Your task to perform on an android device: change the clock display to analog Image 0: 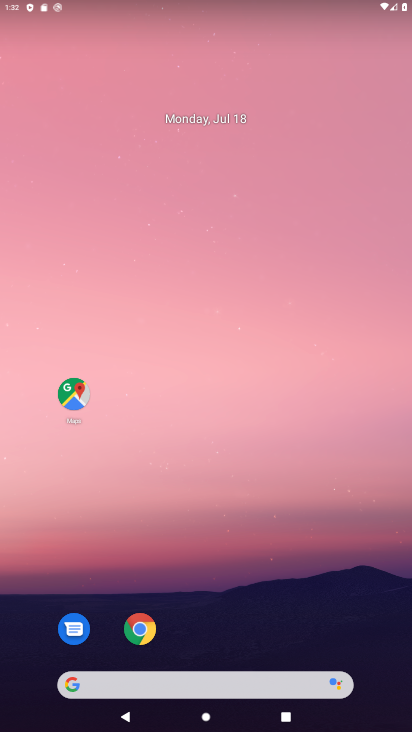
Step 0: drag from (215, 561) to (215, 238)
Your task to perform on an android device: change the clock display to analog Image 1: 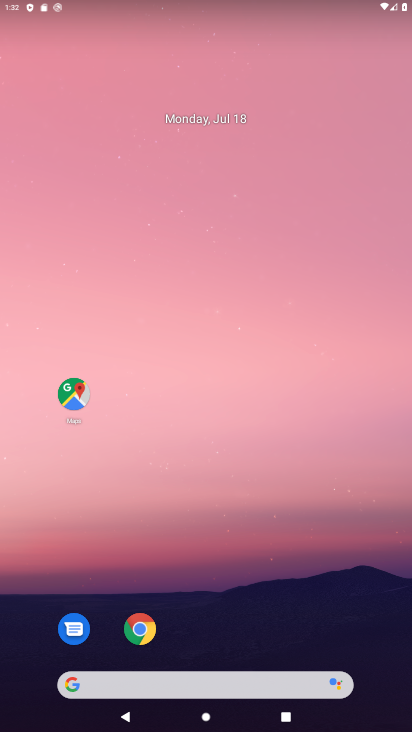
Step 1: drag from (251, 435) to (259, 130)
Your task to perform on an android device: change the clock display to analog Image 2: 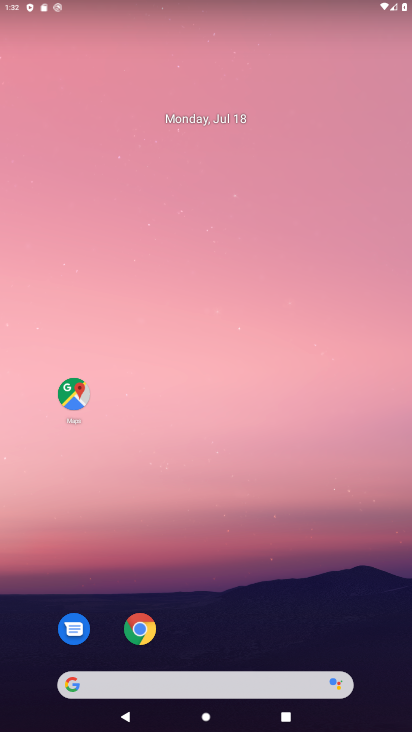
Step 2: drag from (195, 585) to (195, 233)
Your task to perform on an android device: change the clock display to analog Image 3: 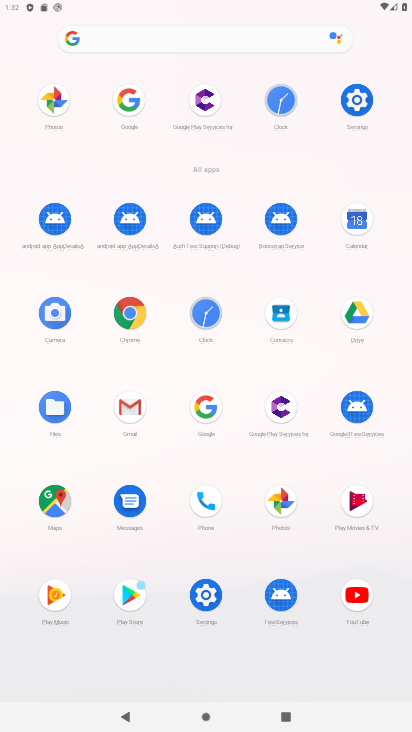
Step 3: click (278, 101)
Your task to perform on an android device: change the clock display to analog Image 4: 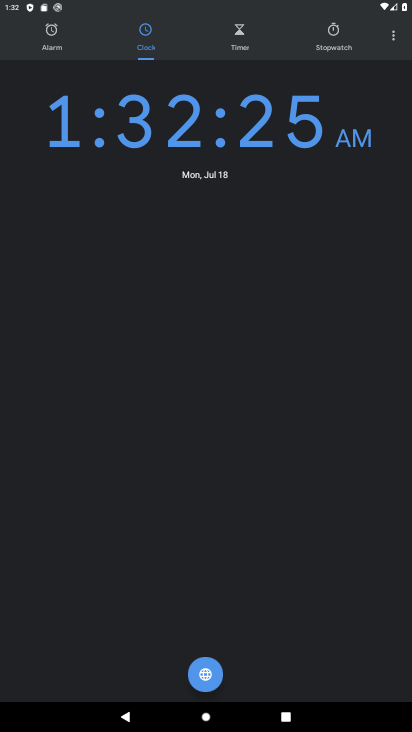
Step 4: click (393, 37)
Your task to perform on an android device: change the clock display to analog Image 5: 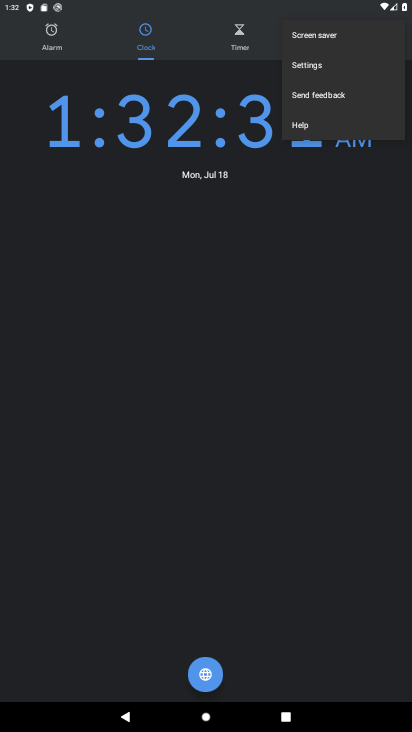
Step 5: click (303, 62)
Your task to perform on an android device: change the clock display to analog Image 6: 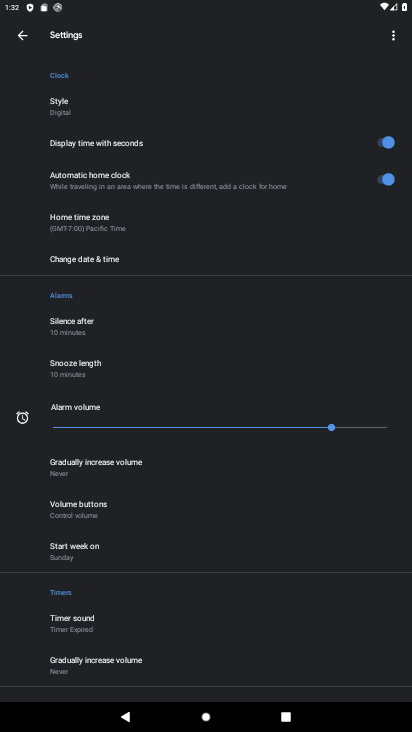
Step 6: click (63, 114)
Your task to perform on an android device: change the clock display to analog Image 7: 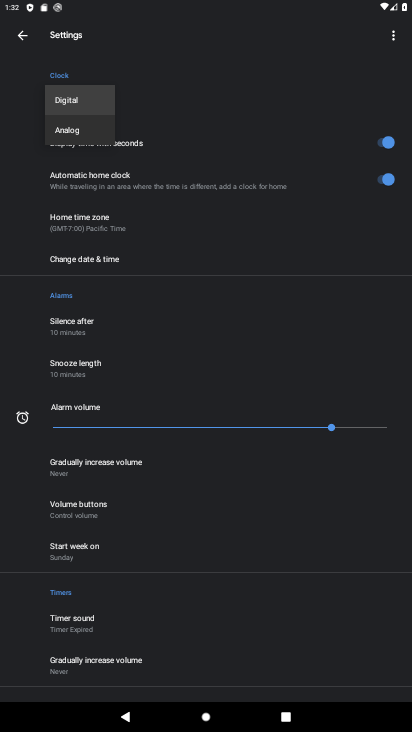
Step 7: click (71, 130)
Your task to perform on an android device: change the clock display to analog Image 8: 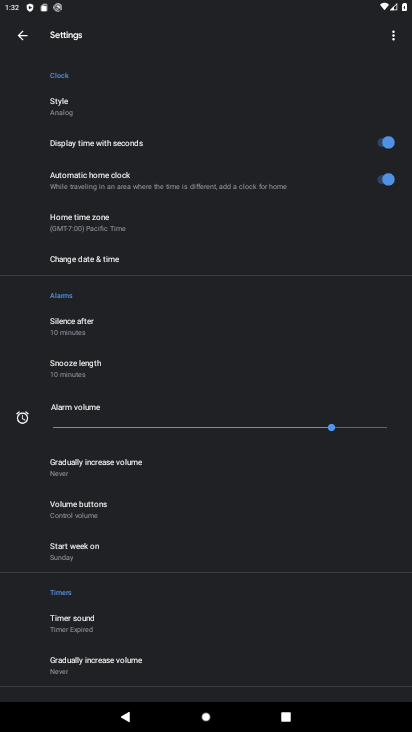
Step 8: task complete